Your task to perform on an android device: Open maps Image 0: 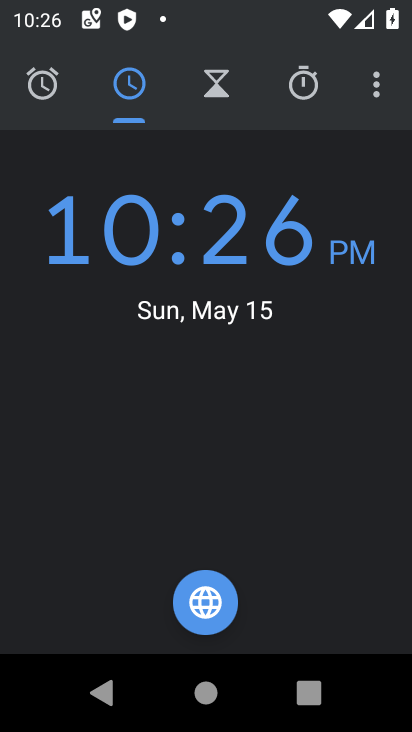
Step 0: click (384, 96)
Your task to perform on an android device: Open maps Image 1: 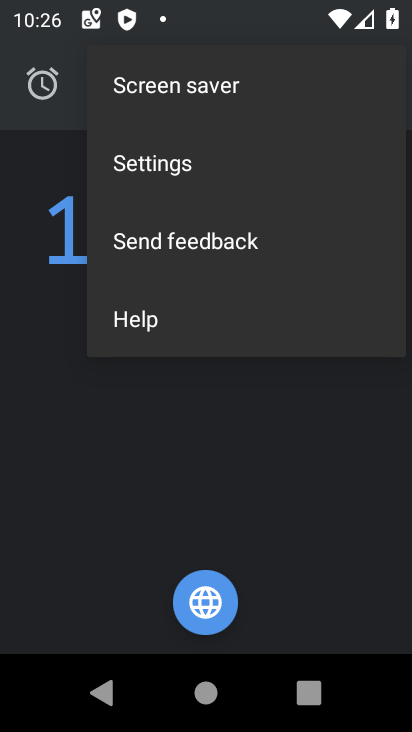
Step 1: click (353, 466)
Your task to perform on an android device: Open maps Image 2: 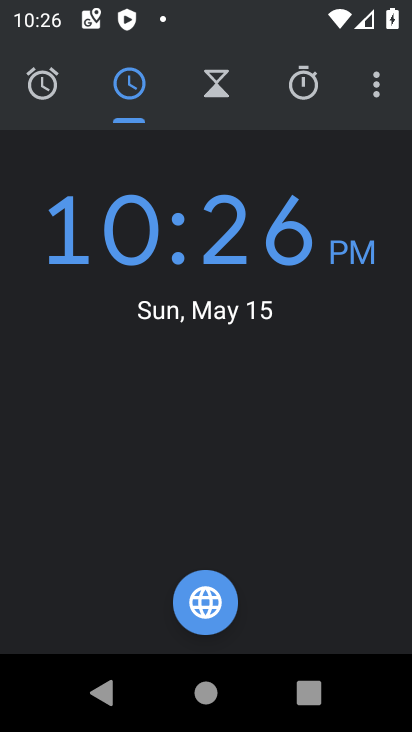
Step 2: press home button
Your task to perform on an android device: Open maps Image 3: 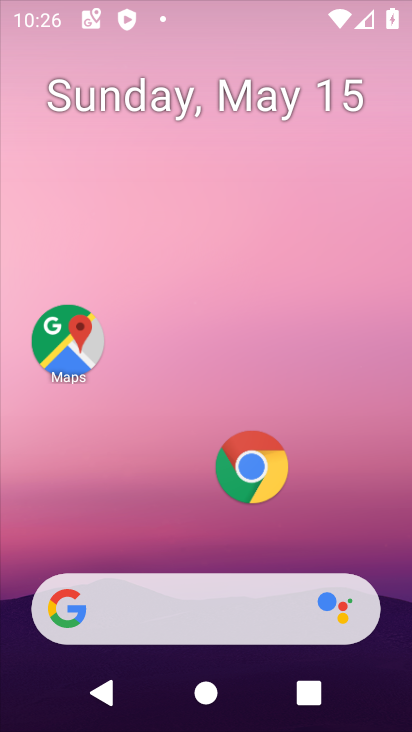
Step 3: drag from (172, 488) to (284, 126)
Your task to perform on an android device: Open maps Image 4: 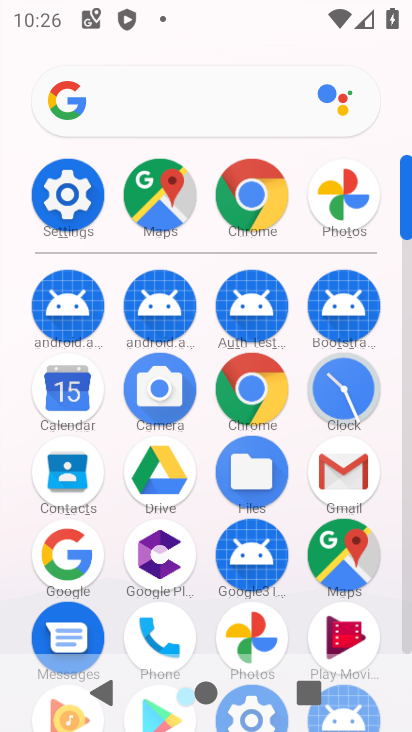
Step 4: click (177, 205)
Your task to perform on an android device: Open maps Image 5: 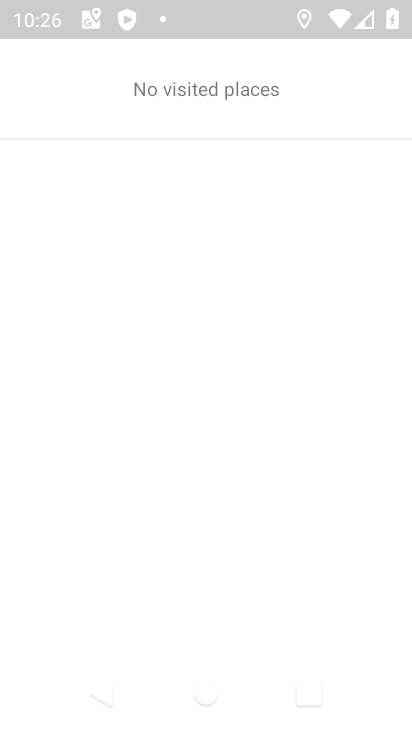
Step 5: task complete